Your task to perform on an android device: change the upload size in google photos Image 0: 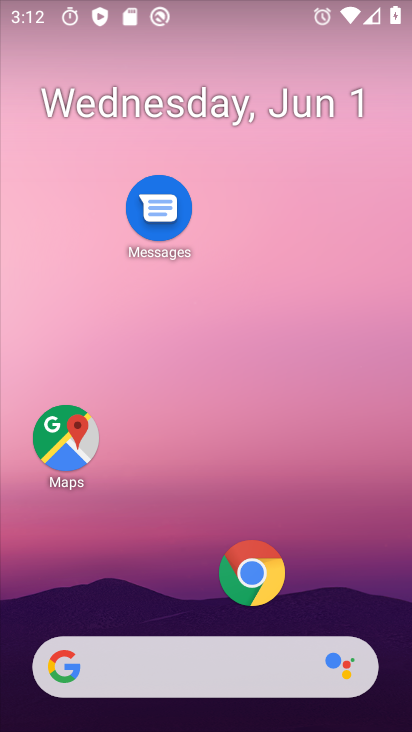
Step 0: drag from (170, 609) to (173, 298)
Your task to perform on an android device: change the upload size in google photos Image 1: 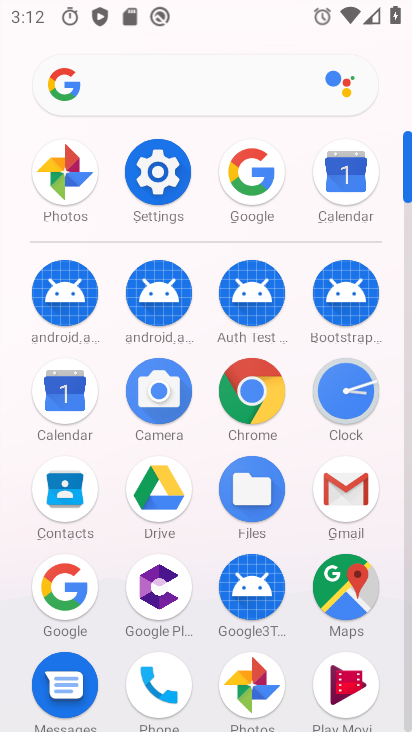
Step 1: click (251, 674)
Your task to perform on an android device: change the upload size in google photos Image 2: 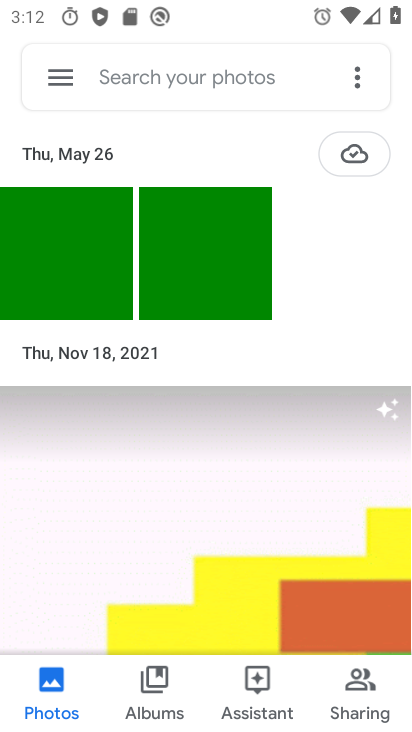
Step 2: click (71, 74)
Your task to perform on an android device: change the upload size in google photos Image 3: 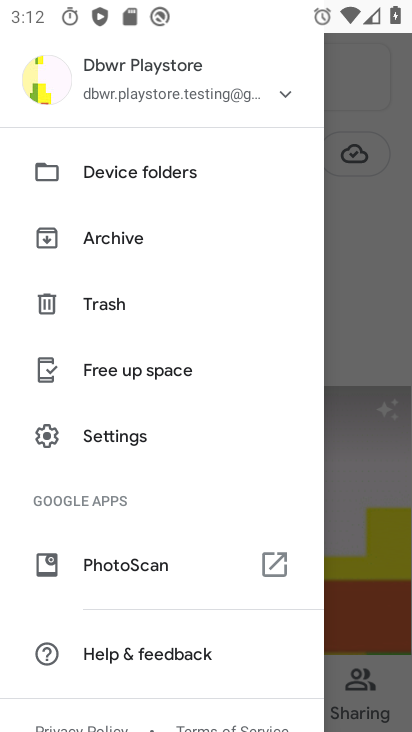
Step 3: drag from (150, 597) to (157, 418)
Your task to perform on an android device: change the upload size in google photos Image 4: 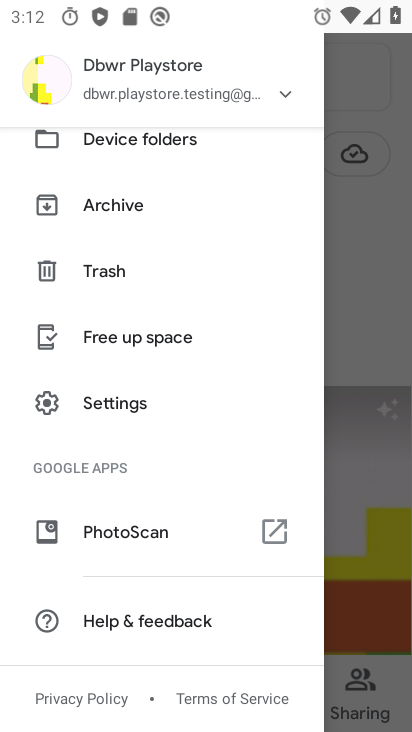
Step 4: click (123, 406)
Your task to perform on an android device: change the upload size in google photos Image 5: 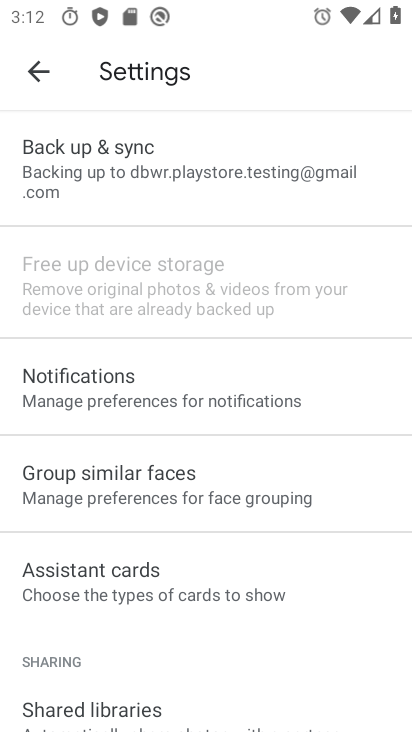
Step 5: drag from (186, 608) to (171, 243)
Your task to perform on an android device: change the upload size in google photos Image 6: 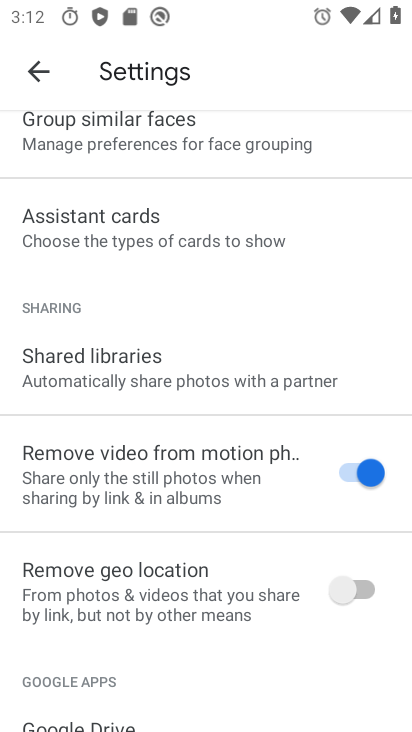
Step 6: drag from (118, 443) to (123, 246)
Your task to perform on an android device: change the upload size in google photos Image 7: 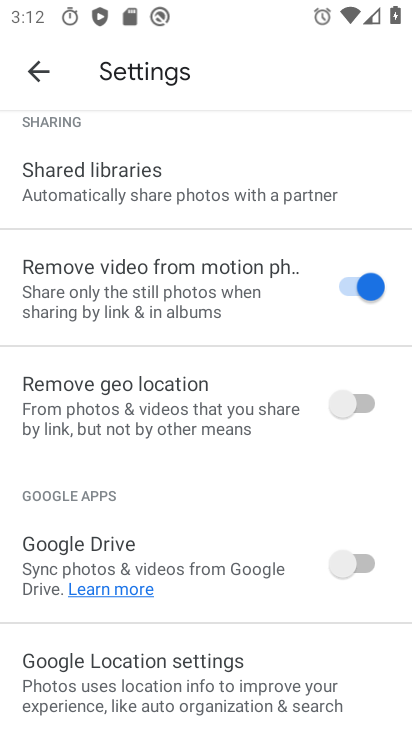
Step 7: drag from (134, 596) to (165, 321)
Your task to perform on an android device: change the upload size in google photos Image 8: 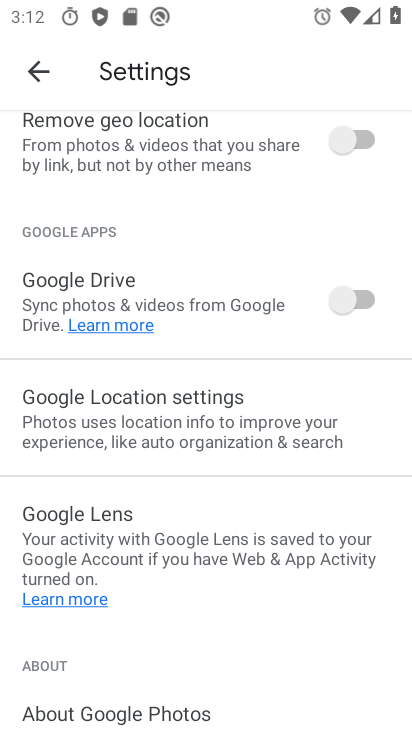
Step 8: drag from (197, 599) to (202, 203)
Your task to perform on an android device: change the upload size in google photos Image 9: 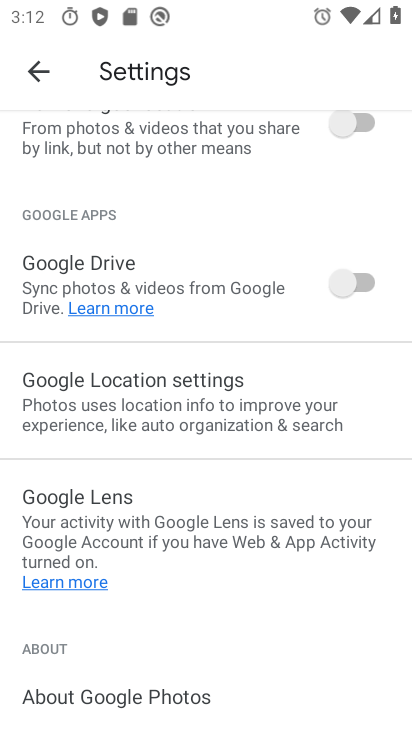
Step 9: drag from (202, 203) to (250, 513)
Your task to perform on an android device: change the upload size in google photos Image 10: 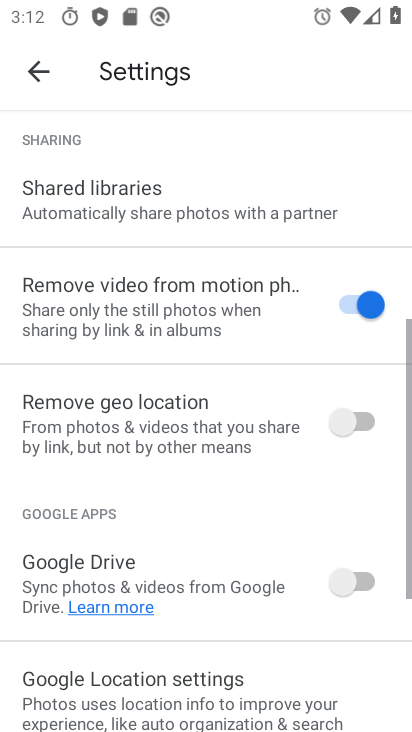
Step 10: drag from (211, 257) to (211, 602)
Your task to perform on an android device: change the upload size in google photos Image 11: 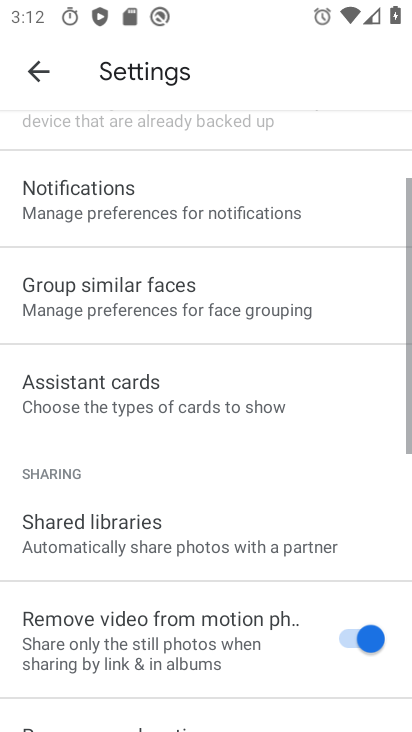
Step 11: drag from (193, 261) to (193, 492)
Your task to perform on an android device: change the upload size in google photos Image 12: 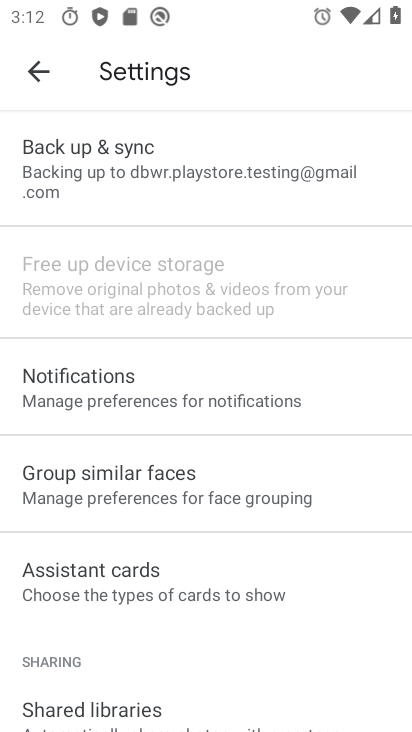
Step 12: drag from (209, 246) to (216, 506)
Your task to perform on an android device: change the upload size in google photos Image 13: 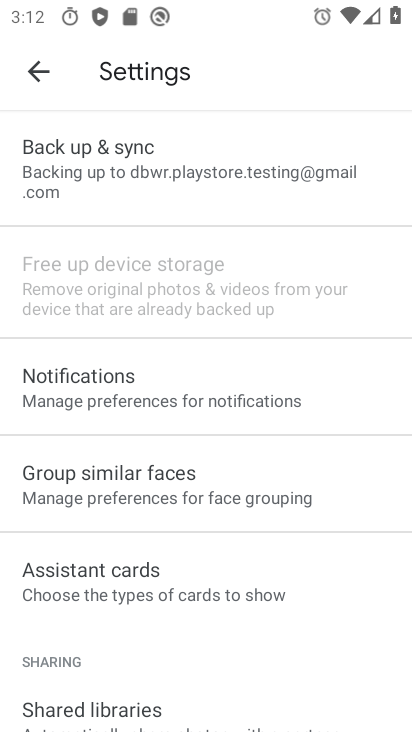
Step 13: click (49, 78)
Your task to perform on an android device: change the upload size in google photos Image 14: 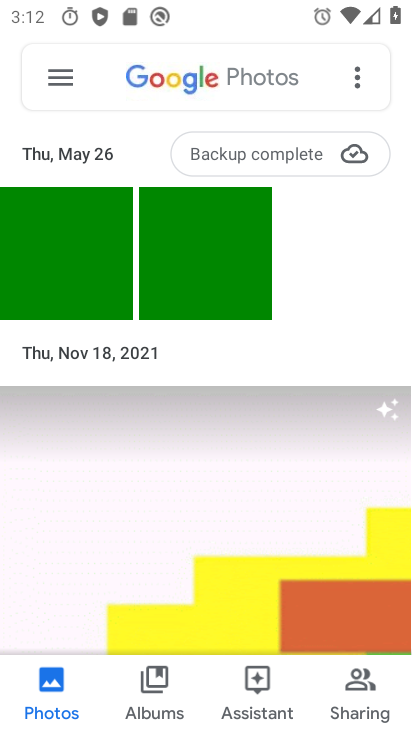
Step 14: click (49, 78)
Your task to perform on an android device: change the upload size in google photos Image 15: 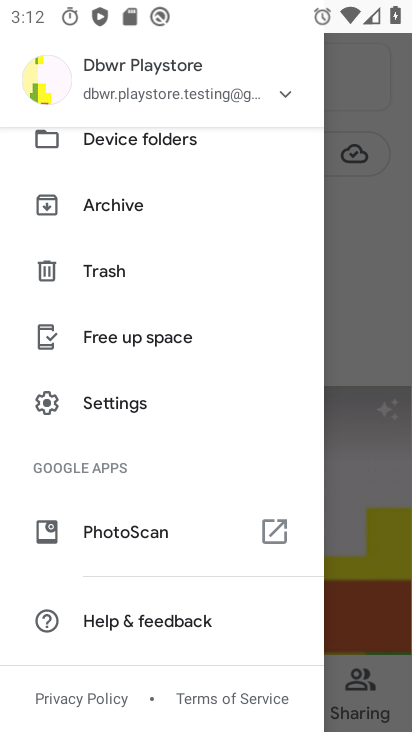
Step 15: click (107, 412)
Your task to perform on an android device: change the upload size in google photos Image 16: 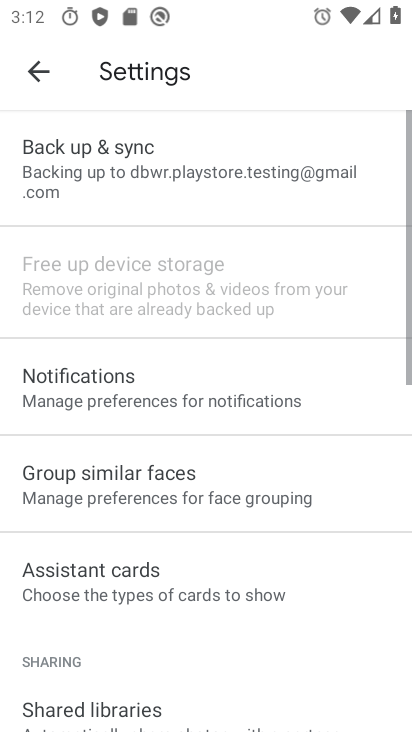
Step 16: click (112, 169)
Your task to perform on an android device: change the upload size in google photos Image 17: 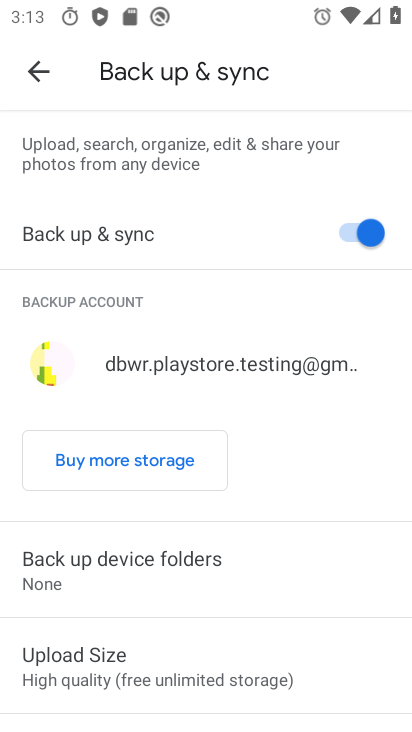
Step 17: drag from (168, 626) to (181, 413)
Your task to perform on an android device: change the upload size in google photos Image 18: 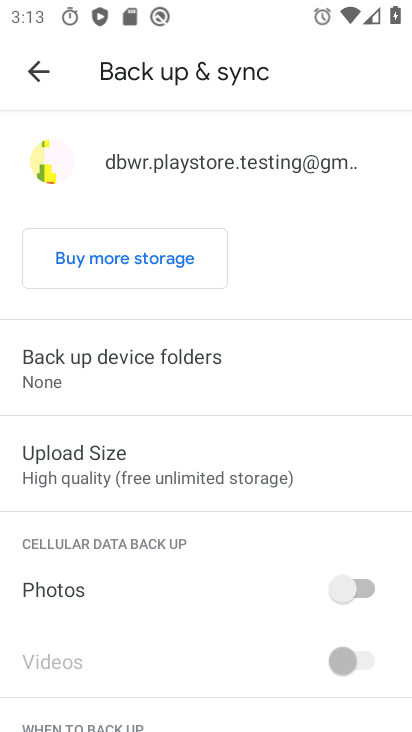
Step 18: click (167, 473)
Your task to perform on an android device: change the upload size in google photos Image 19: 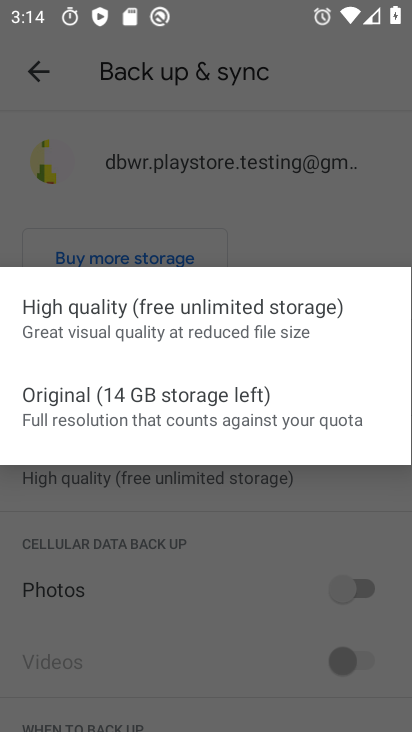
Step 19: click (163, 392)
Your task to perform on an android device: change the upload size in google photos Image 20: 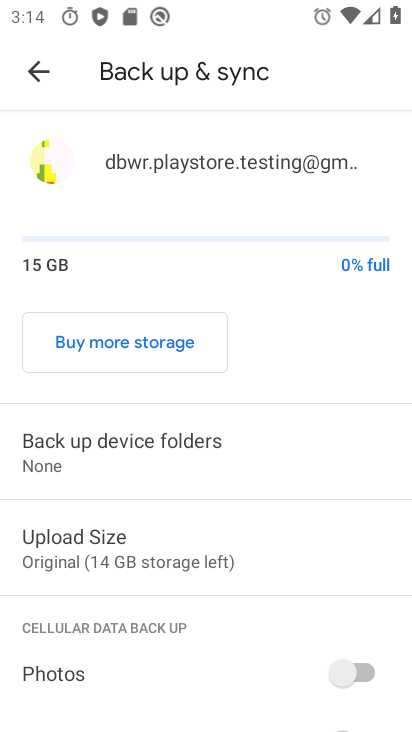
Step 20: task complete